Your task to perform on an android device: Open ESPN.com Image 0: 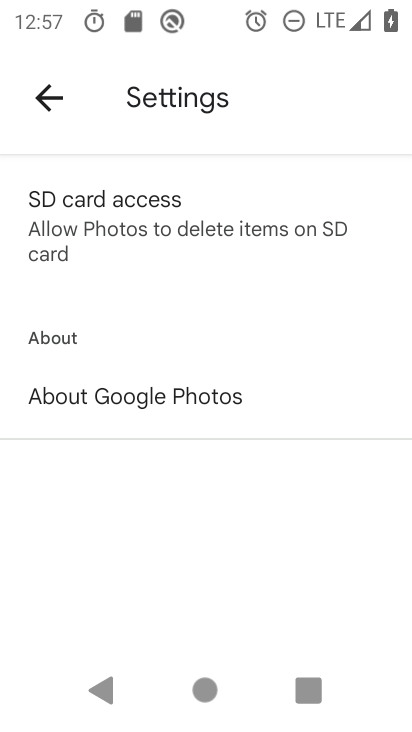
Step 0: press home button
Your task to perform on an android device: Open ESPN.com Image 1: 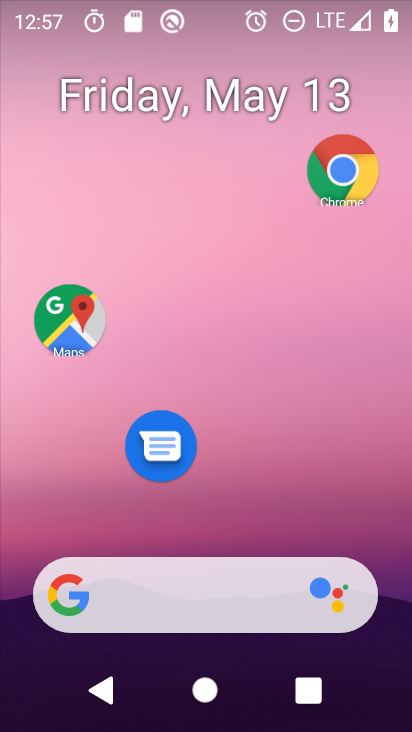
Step 1: drag from (201, 629) to (287, 27)
Your task to perform on an android device: Open ESPN.com Image 2: 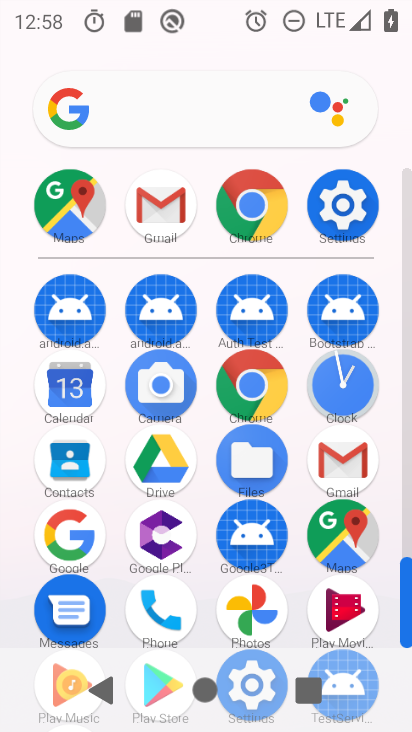
Step 2: click (250, 377)
Your task to perform on an android device: Open ESPN.com Image 3: 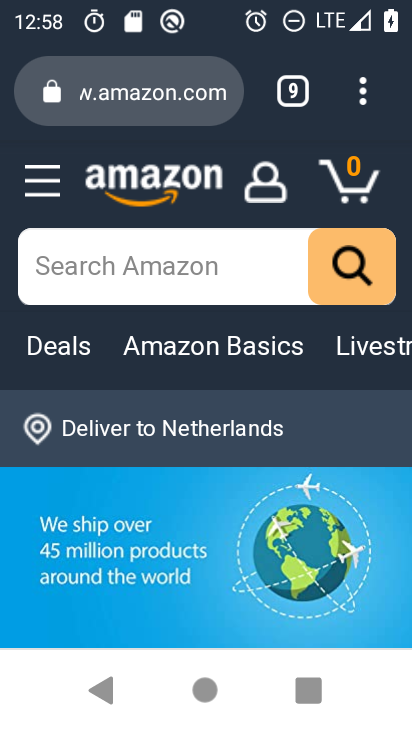
Step 3: click (216, 98)
Your task to perform on an android device: Open ESPN.com Image 4: 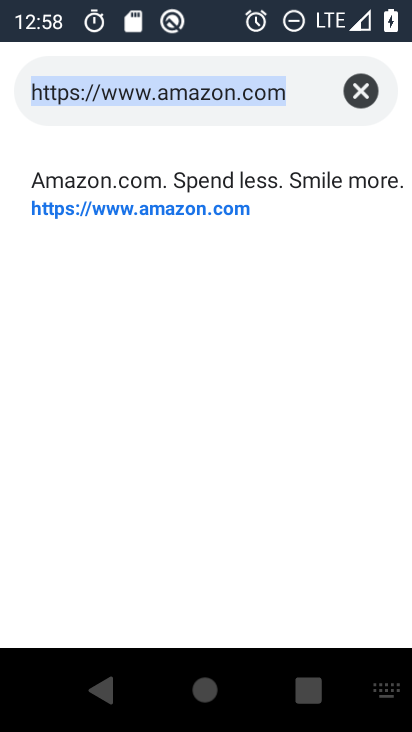
Step 4: click (359, 97)
Your task to perform on an android device: Open ESPN.com Image 5: 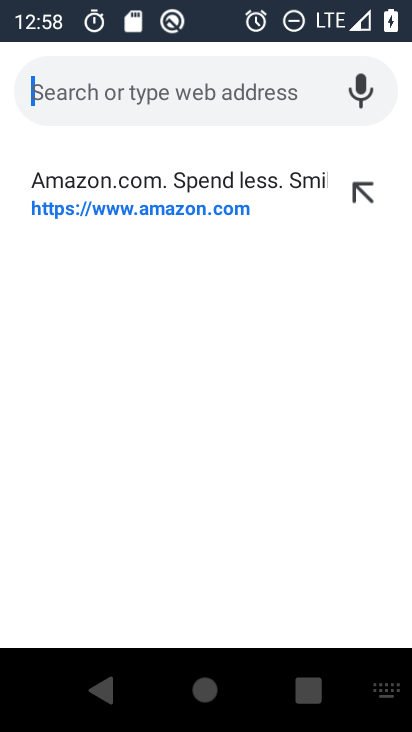
Step 5: type "espn.com"
Your task to perform on an android device: Open ESPN.com Image 6: 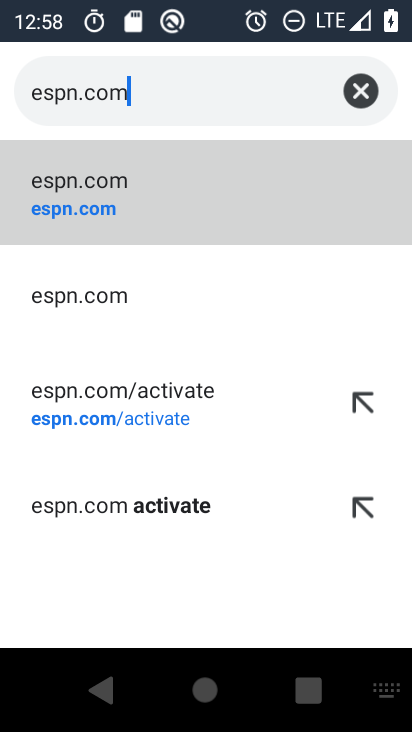
Step 6: click (138, 204)
Your task to perform on an android device: Open ESPN.com Image 7: 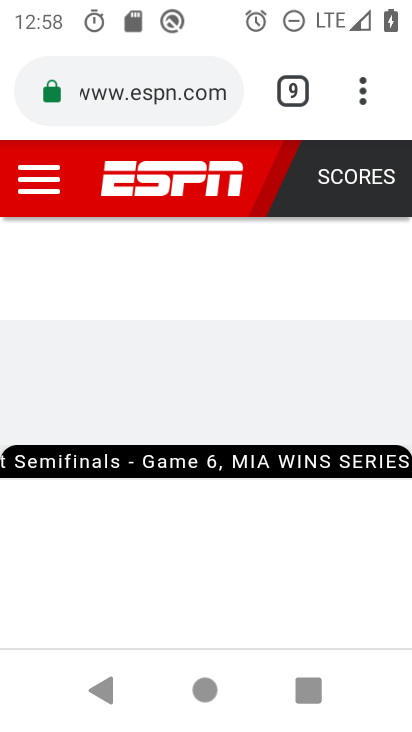
Step 7: task complete